Your task to perform on an android device: empty trash in the gmail app Image 0: 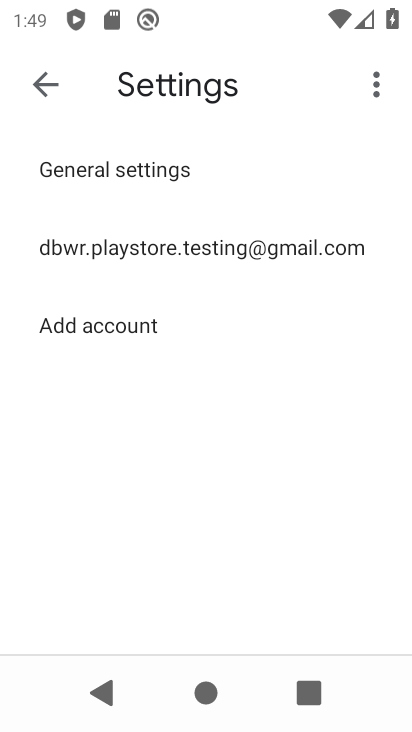
Step 0: press home button
Your task to perform on an android device: empty trash in the gmail app Image 1: 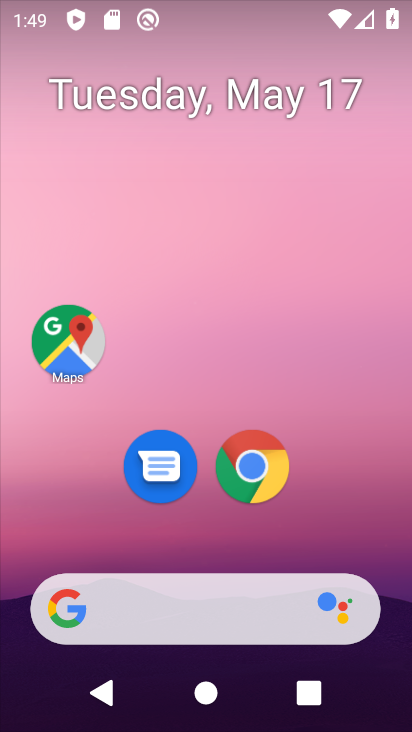
Step 1: drag from (81, 560) to (265, 64)
Your task to perform on an android device: empty trash in the gmail app Image 2: 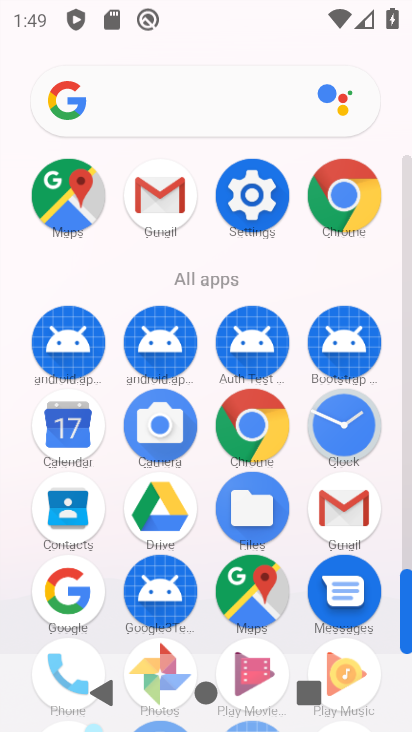
Step 2: click (339, 497)
Your task to perform on an android device: empty trash in the gmail app Image 3: 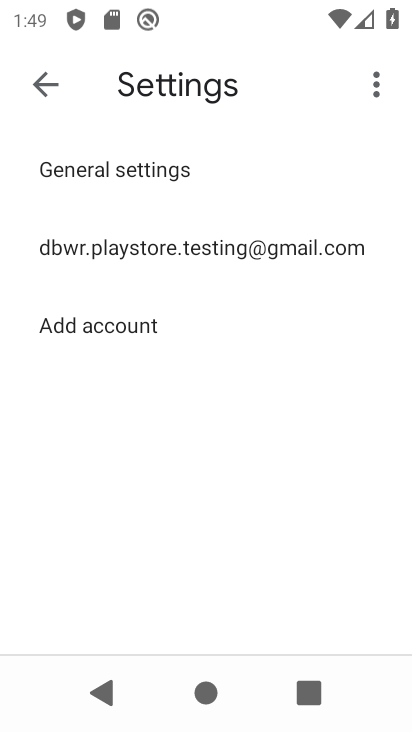
Step 3: click (66, 95)
Your task to perform on an android device: empty trash in the gmail app Image 4: 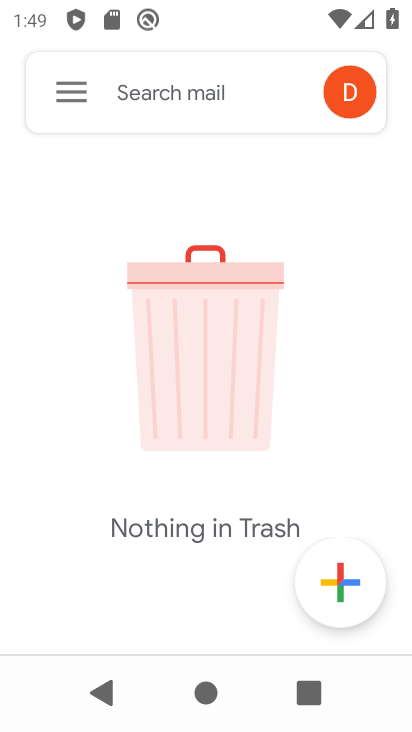
Step 4: click (67, 97)
Your task to perform on an android device: empty trash in the gmail app Image 5: 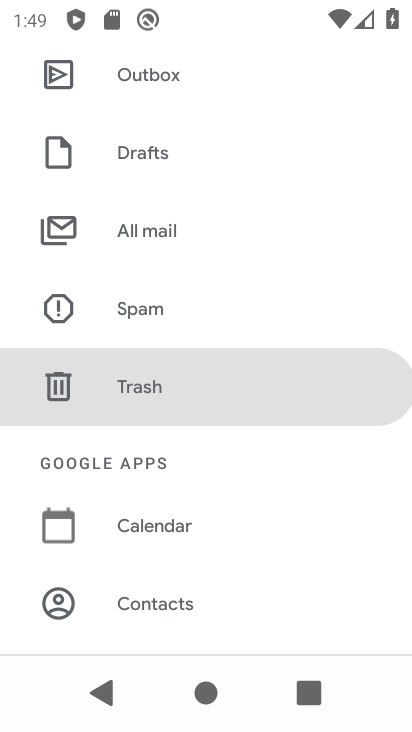
Step 5: click (191, 391)
Your task to perform on an android device: empty trash in the gmail app Image 6: 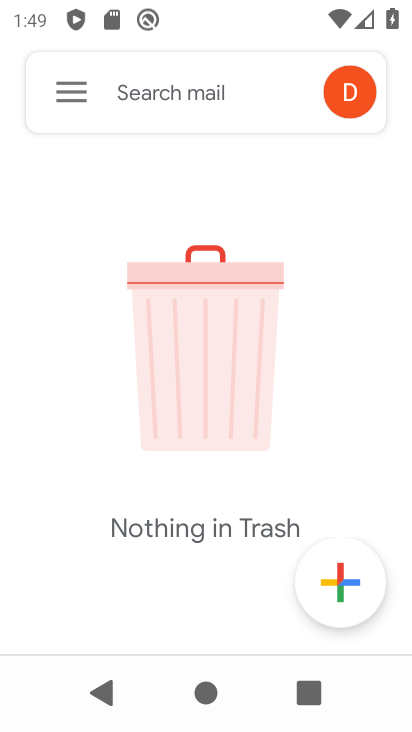
Step 6: task complete